Your task to perform on an android device: toggle data saver in the chrome app Image 0: 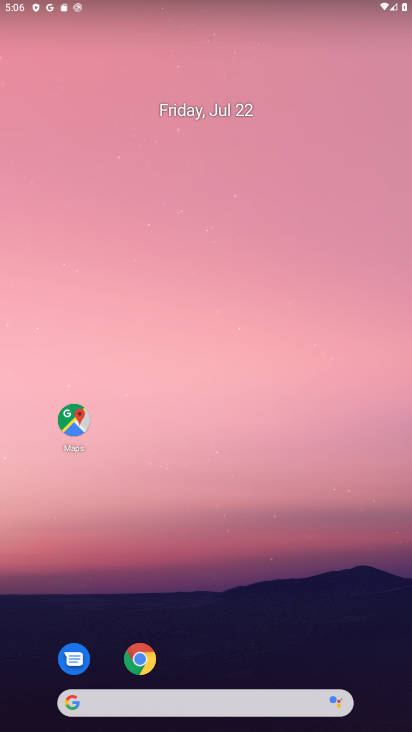
Step 0: press home button
Your task to perform on an android device: toggle data saver in the chrome app Image 1: 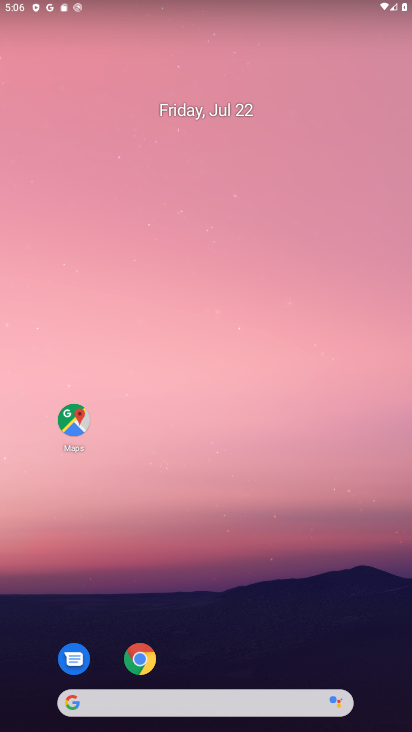
Step 1: click (138, 651)
Your task to perform on an android device: toggle data saver in the chrome app Image 2: 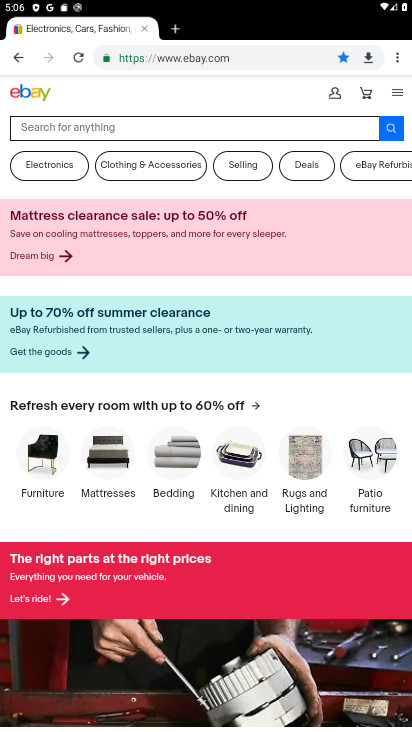
Step 2: click (394, 56)
Your task to perform on an android device: toggle data saver in the chrome app Image 3: 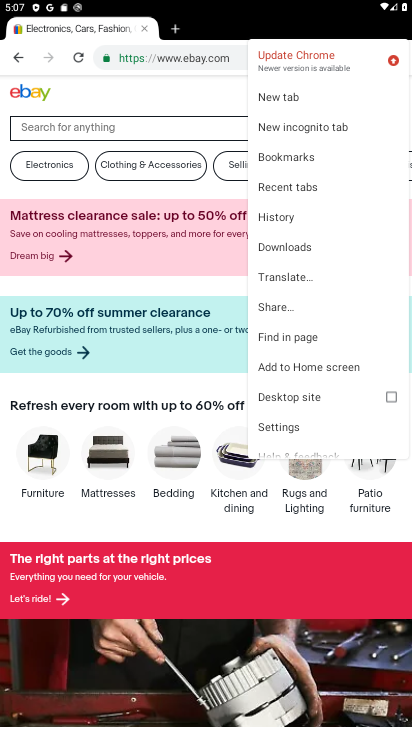
Step 3: click (303, 427)
Your task to perform on an android device: toggle data saver in the chrome app Image 4: 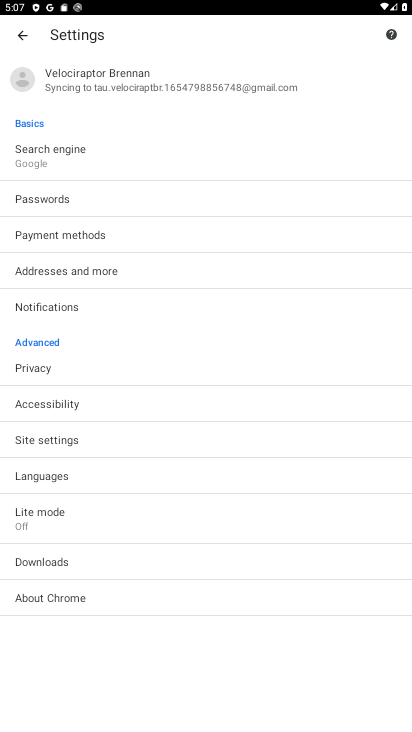
Step 4: click (60, 508)
Your task to perform on an android device: toggle data saver in the chrome app Image 5: 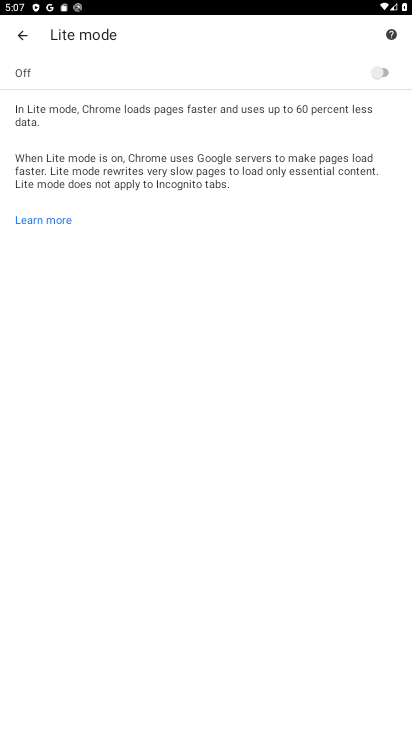
Step 5: click (387, 72)
Your task to perform on an android device: toggle data saver in the chrome app Image 6: 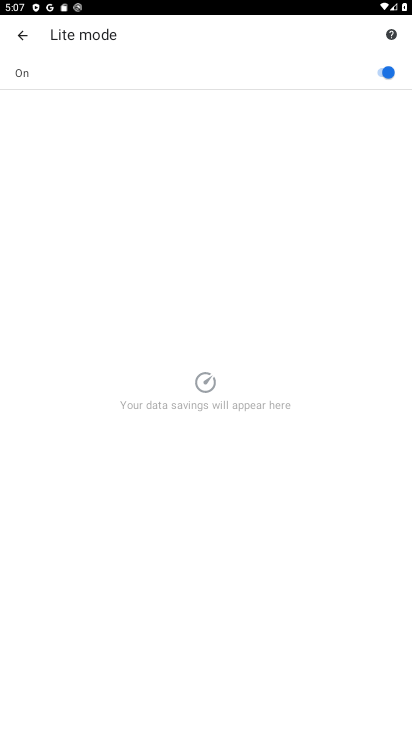
Step 6: task complete